Your task to perform on an android device: toggle priority inbox in the gmail app Image 0: 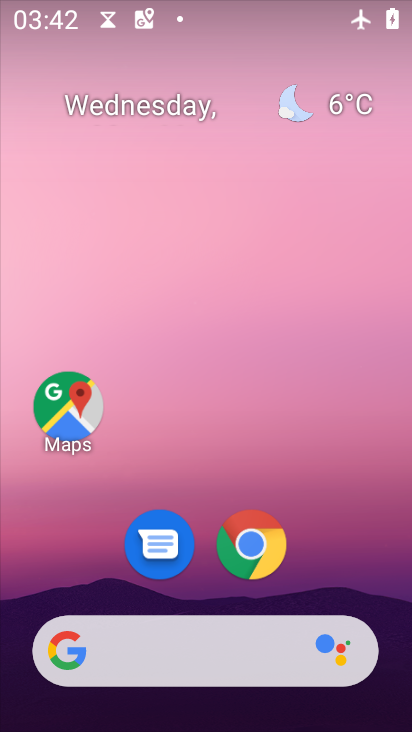
Step 0: drag from (331, 592) to (321, 64)
Your task to perform on an android device: toggle priority inbox in the gmail app Image 1: 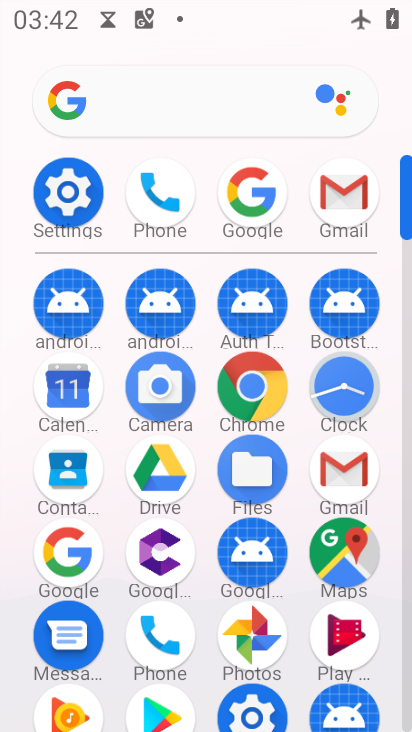
Step 1: click (342, 474)
Your task to perform on an android device: toggle priority inbox in the gmail app Image 2: 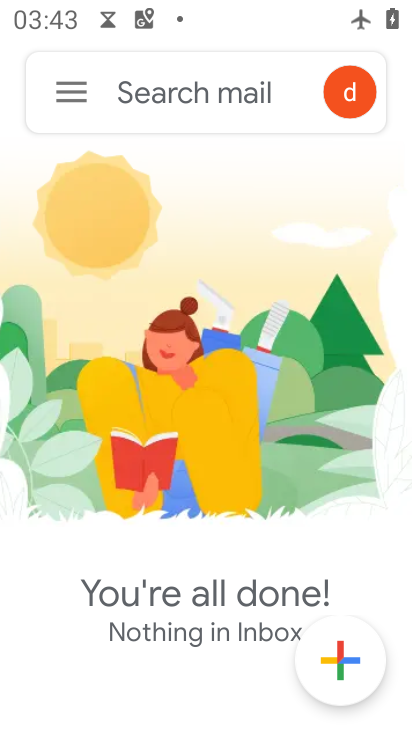
Step 2: click (77, 96)
Your task to perform on an android device: toggle priority inbox in the gmail app Image 3: 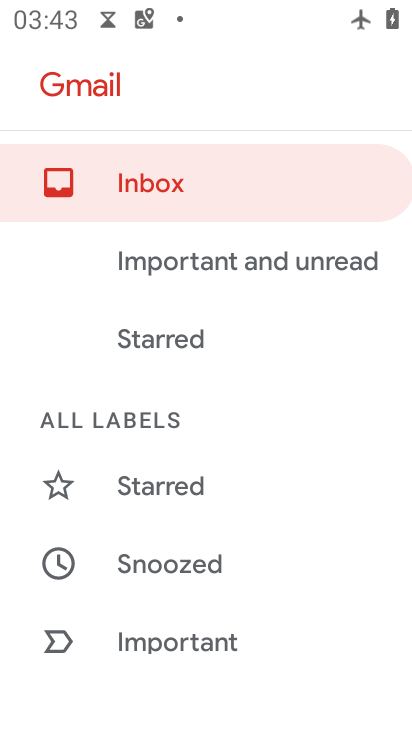
Step 3: drag from (218, 630) to (251, 221)
Your task to perform on an android device: toggle priority inbox in the gmail app Image 4: 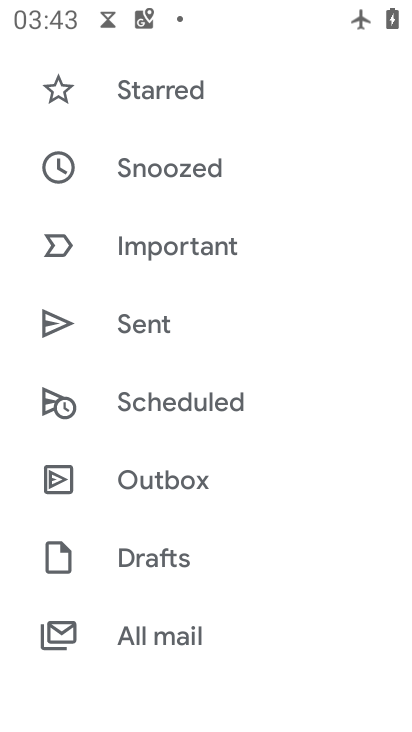
Step 4: drag from (252, 289) to (261, 150)
Your task to perform on an android device: toggle priority inbox in the gmail app Image 5: 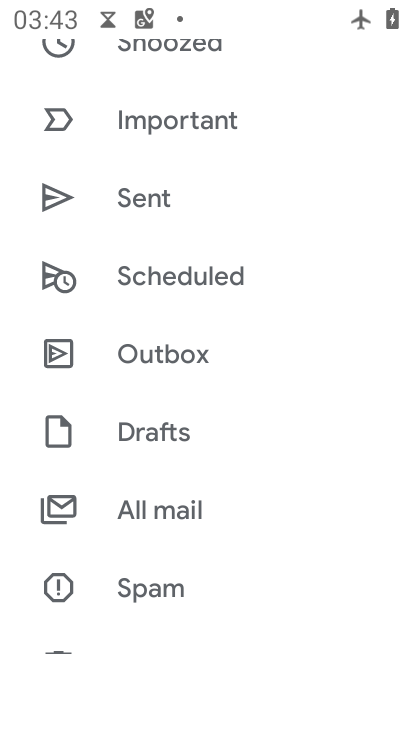
Step 5: drag from (165, 573) to (166, 144)
Your task to perform on an android device: toggle priority inbox in the gmail app Image 6: 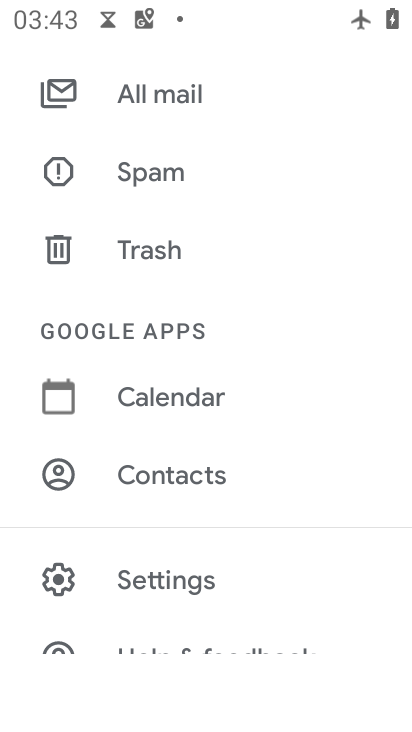
Step 6: click (153, 590)
Your task to perform on an android device: toggle priority inbox in the gmail app Image 7: 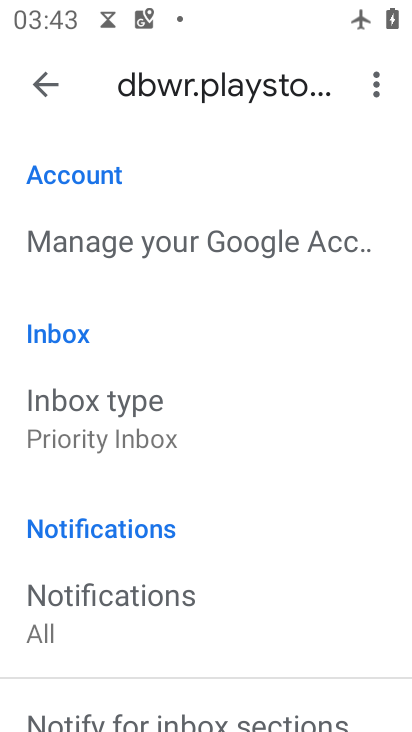
Step 7: click (85, 436)
Your task to perform on an android device: toggle priority inbox in the gmail app Image 8: 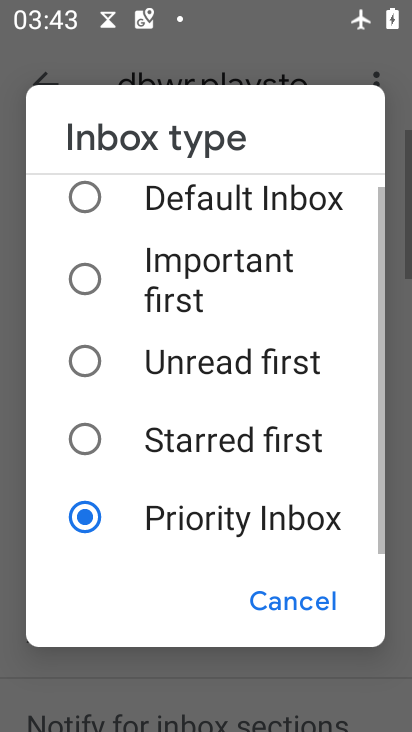
Step 8: click (238, 201)
Your task to perform on an android device: toggle priority inbox in the gmail app Image 9: 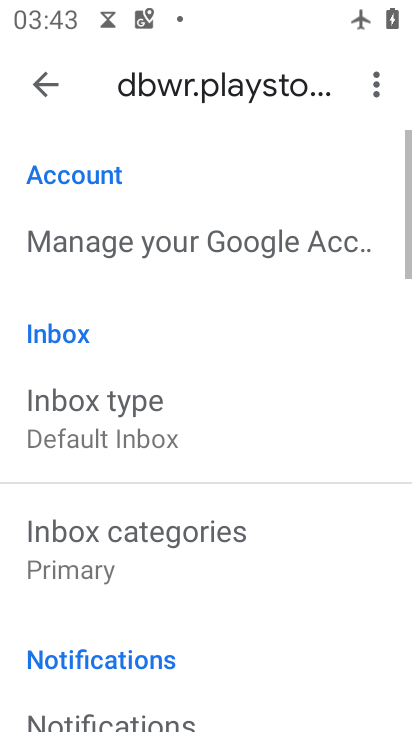
Step 9: task complete